Your task to perform on an android device: check battery use Image 0: 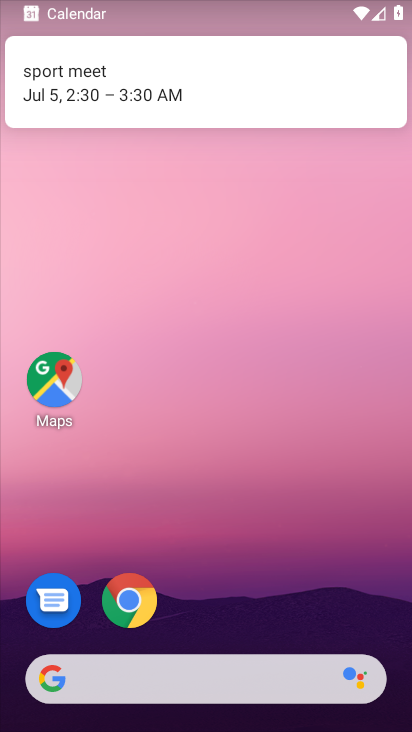
Step 0: drag from (242, 604) to (182, 0)
Your task to perform on an android device: check battery use Image 1: 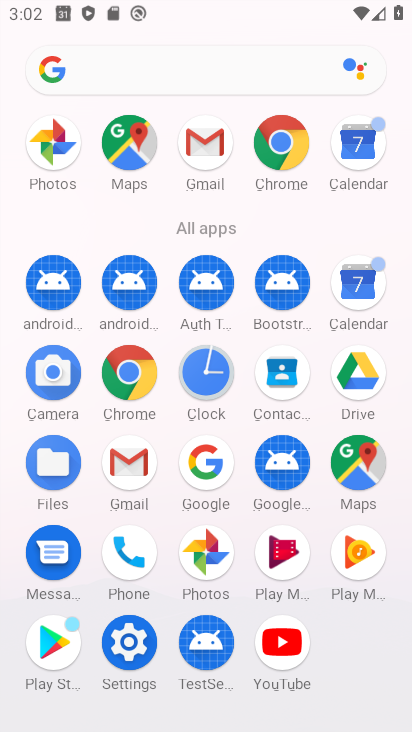
Step 1: click (123, 643)
Your task to perform on an android device: check battery use Image 2: 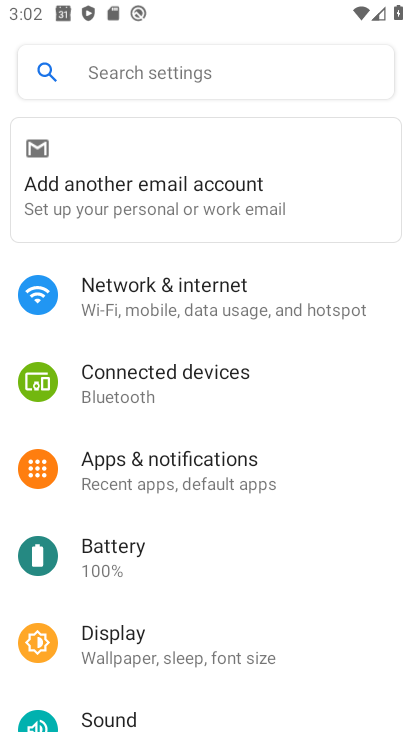
Step 2: click (146, 548)
Your task to perform on an android device: check battery use Image 3: 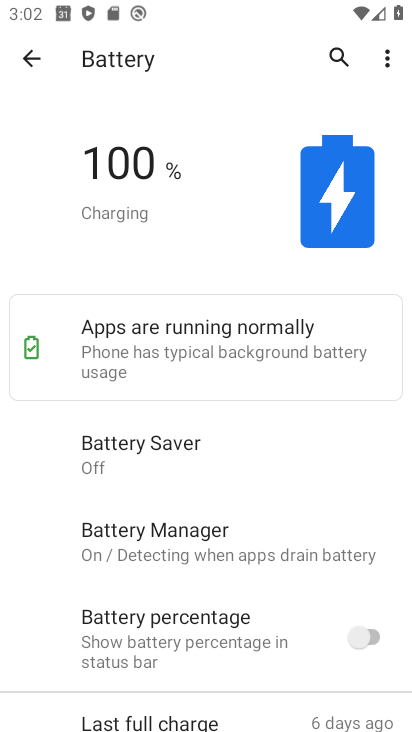
Step 3: click (382, 55)
Your task to perform on an android device: check battery use Image 4: 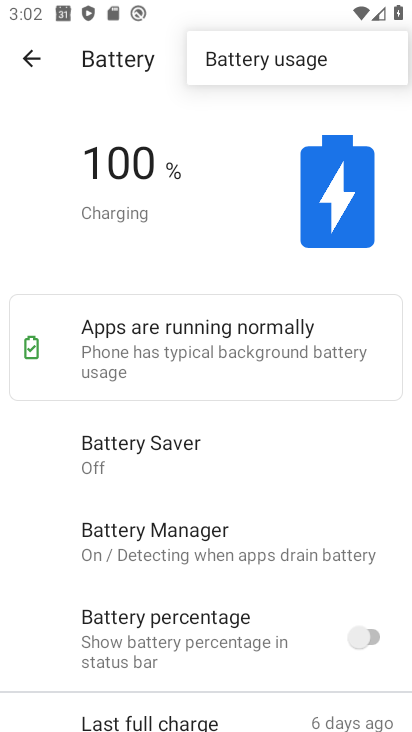
Step 4: click (338, 55)
Your task to perform on an android device: check battery use Image 5: 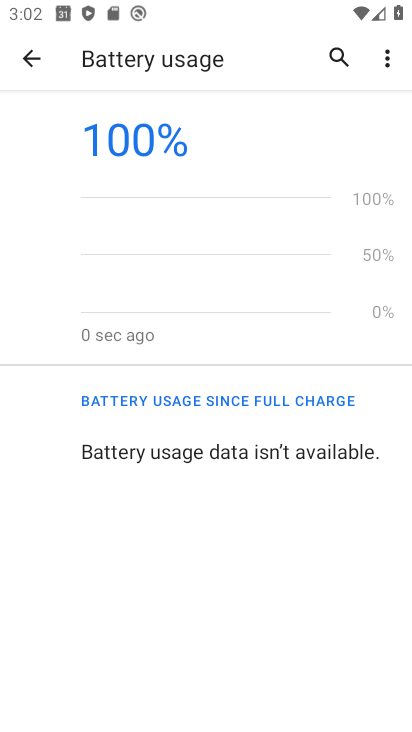
Step 5: task complete